Your task to perform on an android device: Open battery settings Image 0: 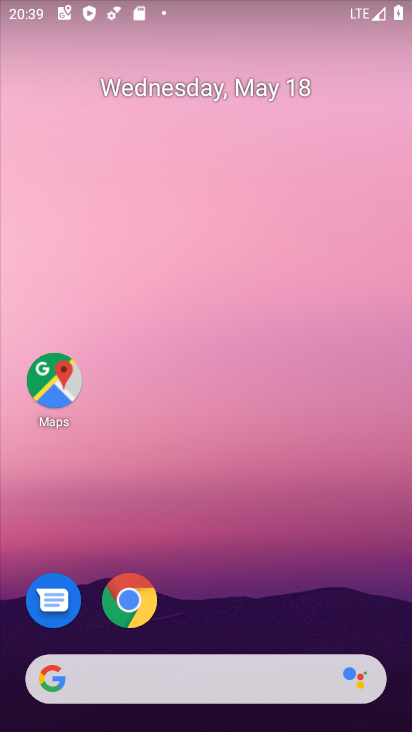
Step 0: drag from (212, 525) to (269, 59)
Your task to perform on an android device: Open battery settings Image 1: 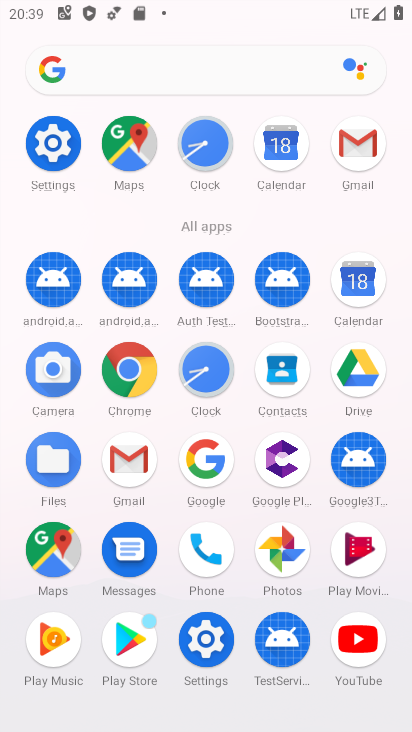
Step 1: click (44, 146)
Your task to perform on an android device: Open battery settings Image 2: 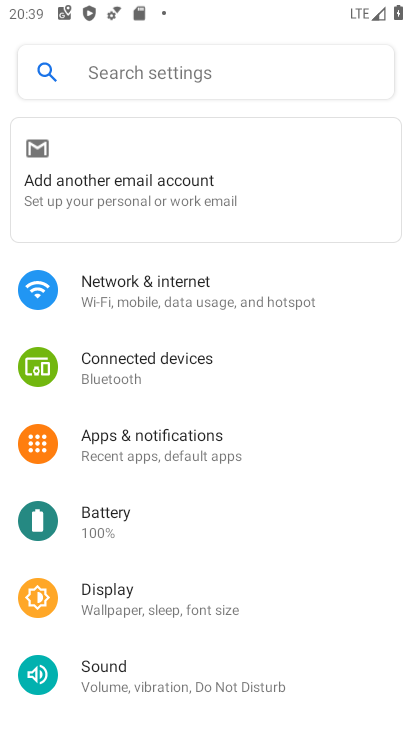
Step 2: click (127, 537)
Your task to perform on an android device: Open battery settings Image 3: 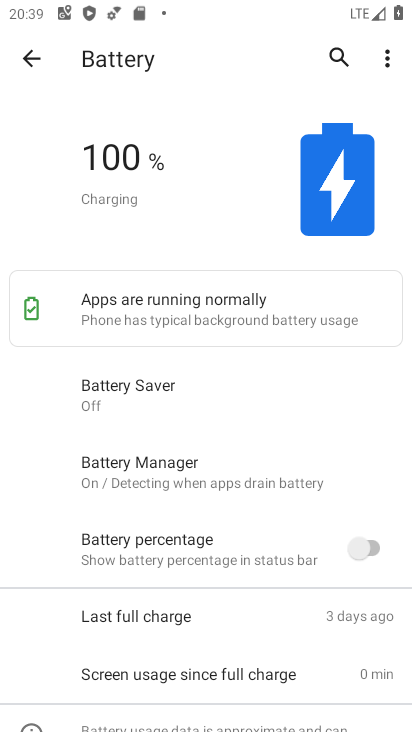
Step 3: task complete